Your task to perform on an android device: turn notification dots off Image 0: 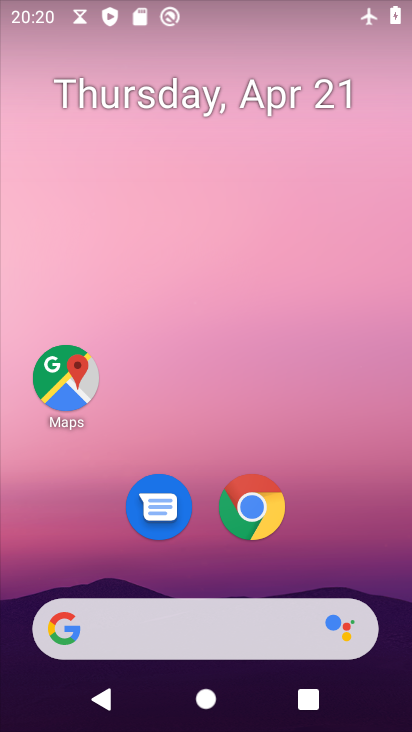
Step 0: drag from (184, 550) to (312, 61)
Your task to perform on an android device: turn notification dots off Image 1: 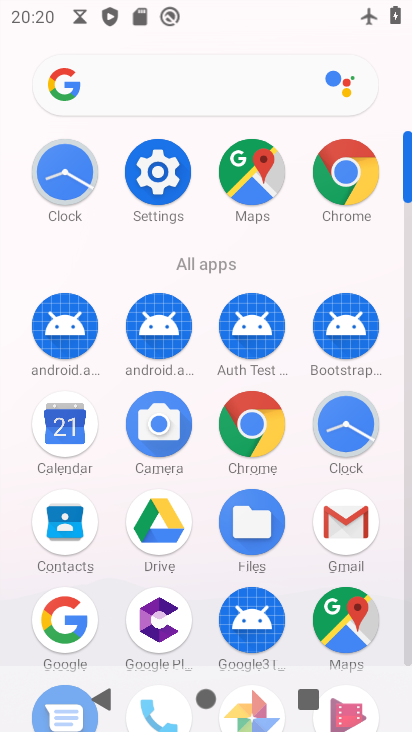
Step 1: click (167, 164)
Your task to perform on an android device: turn notification dots off Image 2: 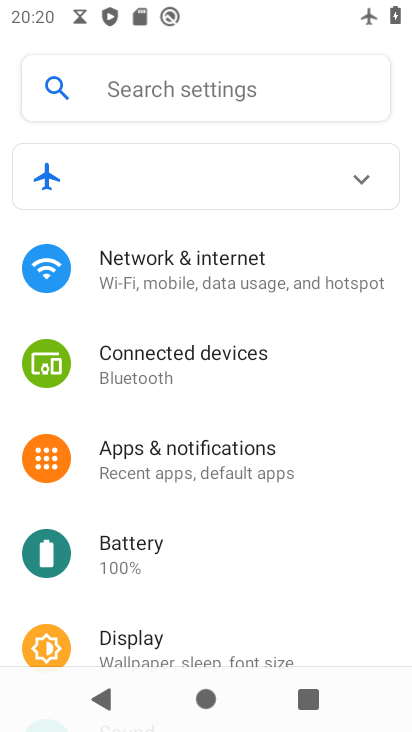
Step 2: click (182, 449)
Your task to perform on an android device: turn notification dots off Image 3: 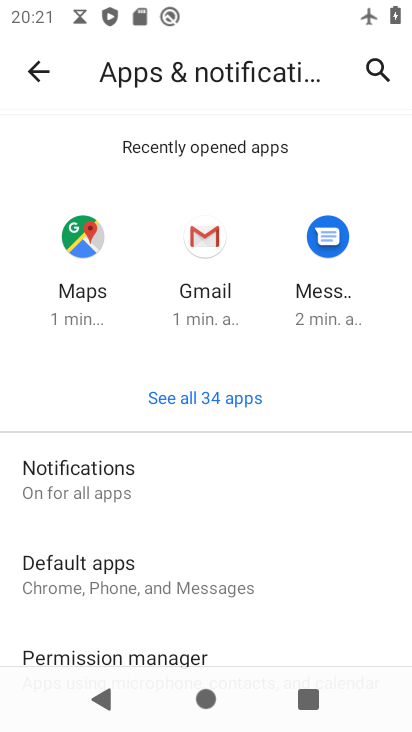
Step 3: click (175, 475)
Your task to perform on an android device: turn notification dots off Image 4: 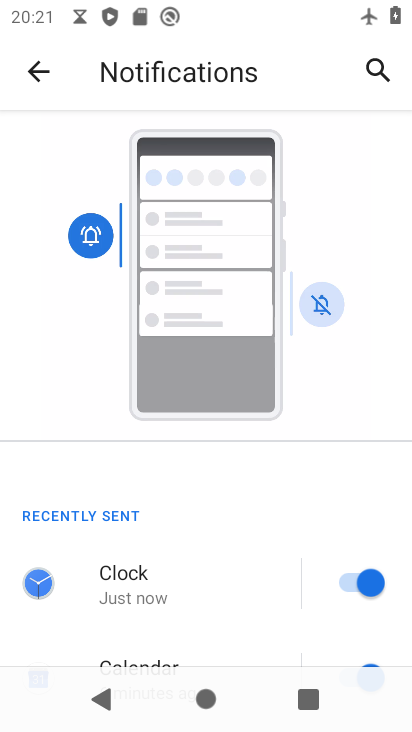
Step 4: drag from (178, 527) to (258, 167)
Your task to perform on an android device: turn notification dots off Image 5: 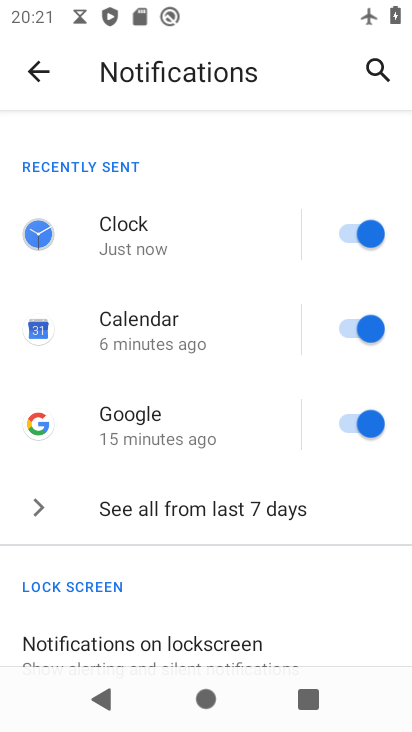
Step 5: drag from (158, 594) to (273, 120)
Your task to perform on an android device: turn notification dots off Image 6: 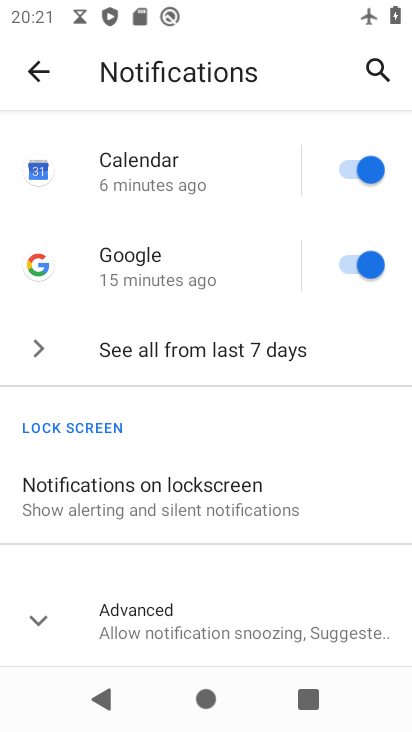
Step 6: click (178, 615)
Your task to perform on an android device: turn notification dots off Image 7: 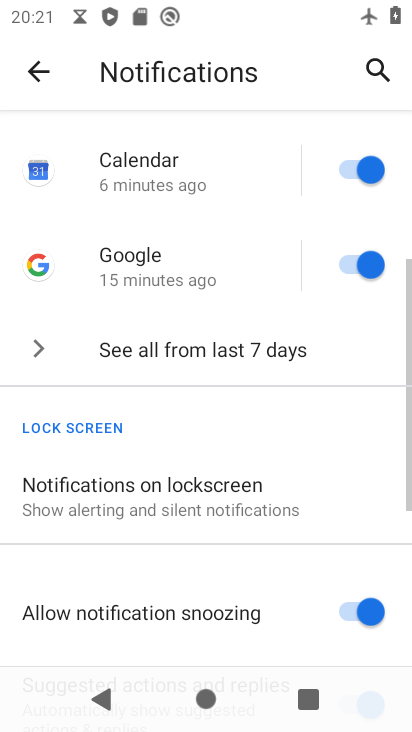
Step 7: drag from (220, 516) to (277, 188)
Your task to perform on an android device: turn notification dots off Image 8: 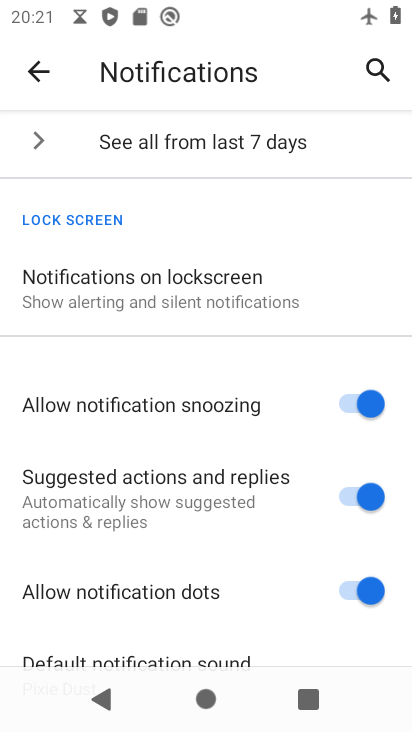
Step 8: click (366, 585)
Your task to perform on an android device: turn notification dots off Image 9: 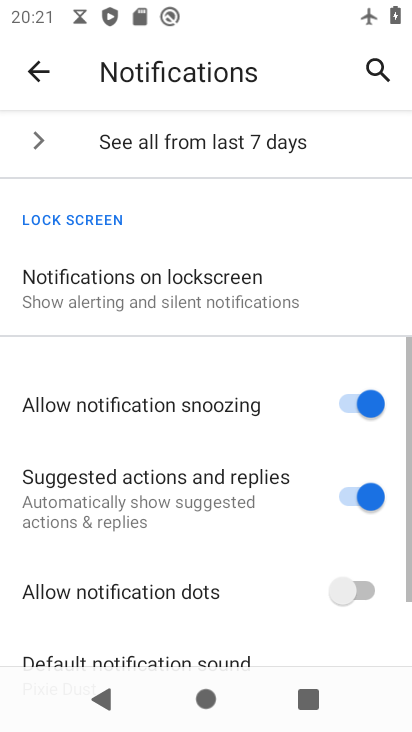
Step 9: task complete